Your task to perform on an android device: Open ESPN.com Image 0: 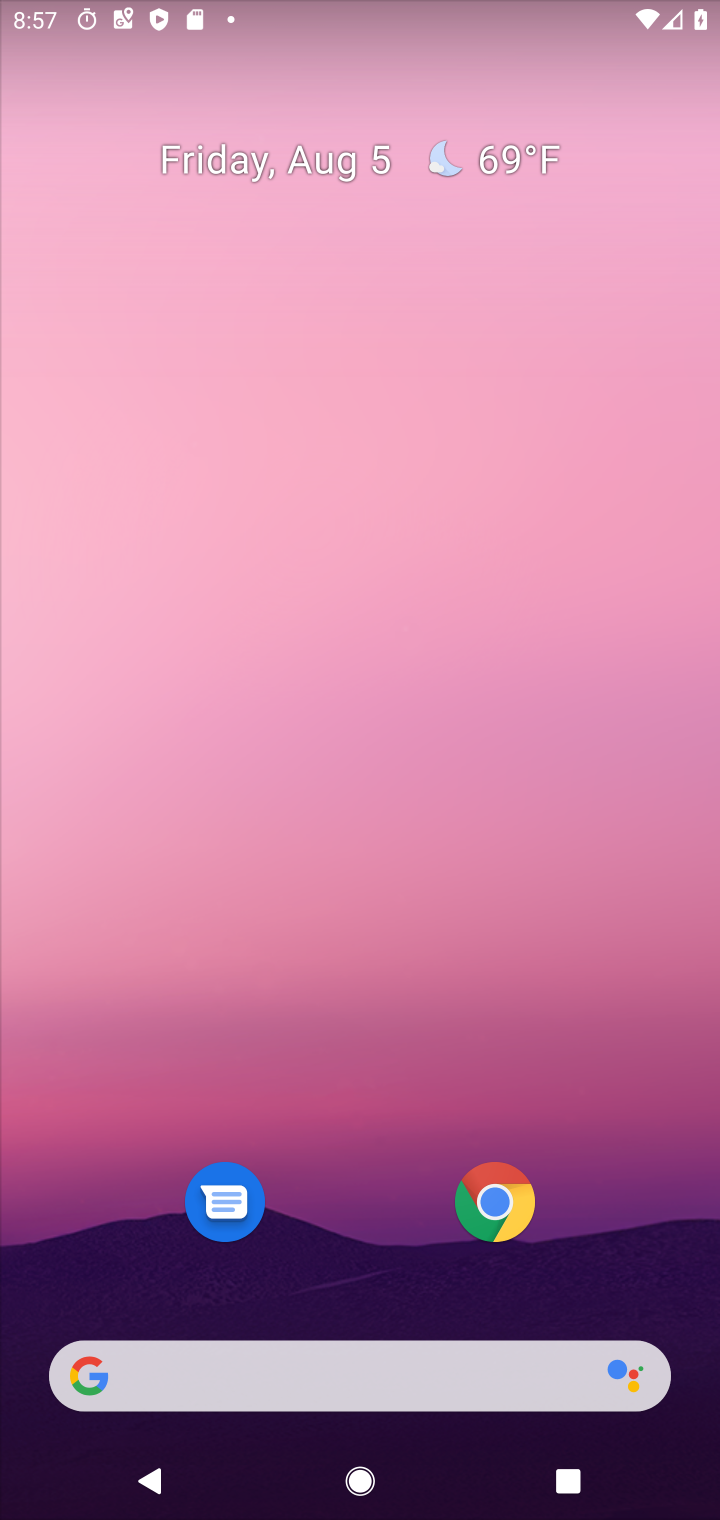
Step 0: click (514, 1206)
Your task to perform on an android device: Open ESPN.com Image 1: 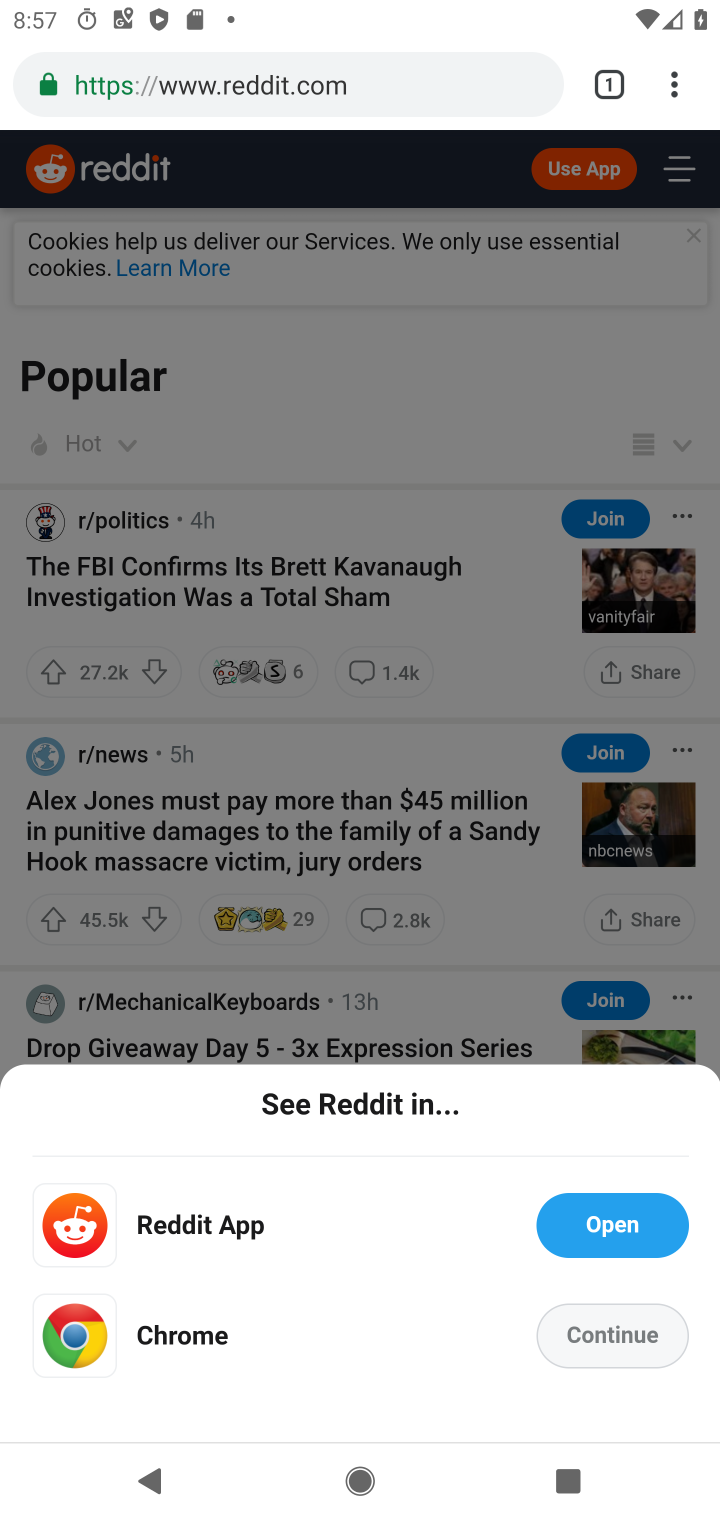
Step 1: click (315, 98)
Your task to perform on an android device: Open ESPN.com Image 2: 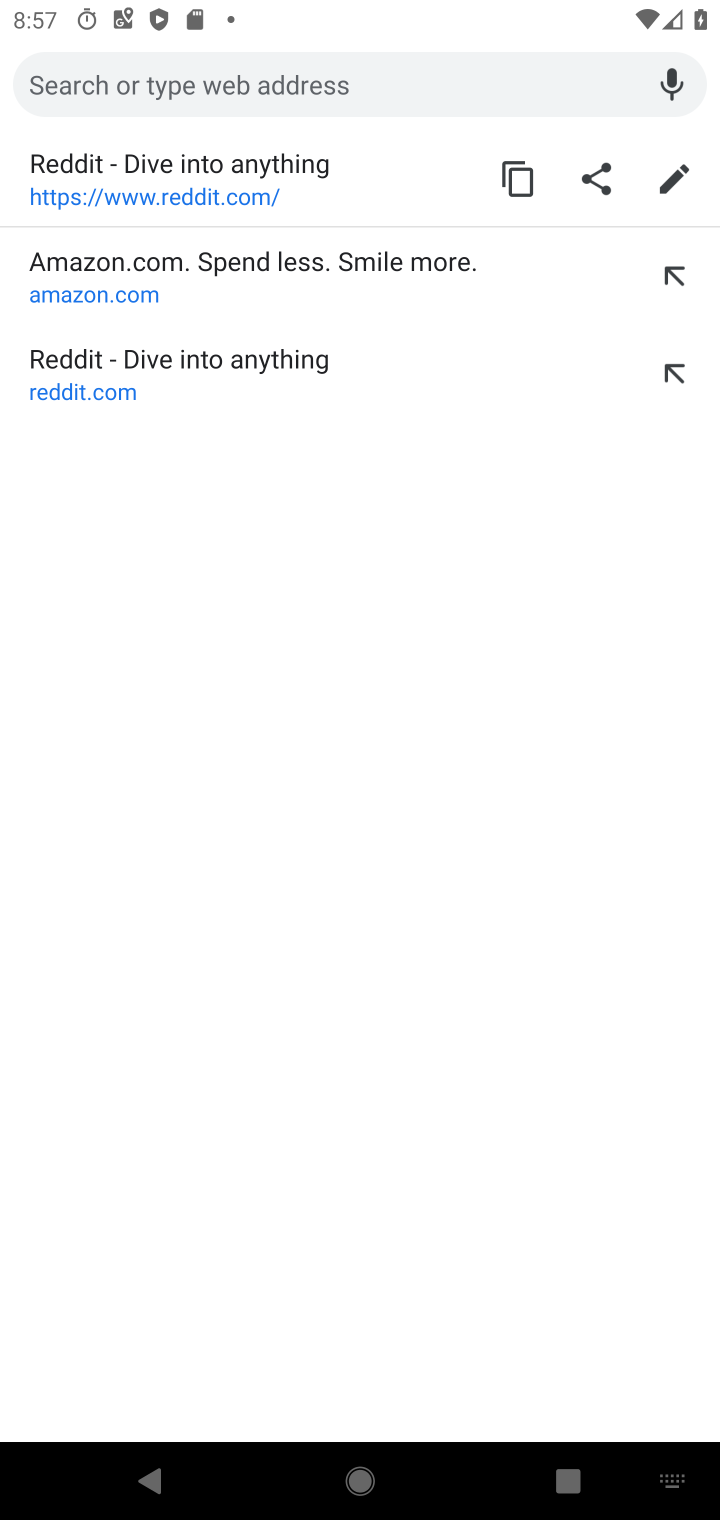
Step 2: type "ESPN.com"
Your task to perform on an android device: Open ESPN.com Image 3: 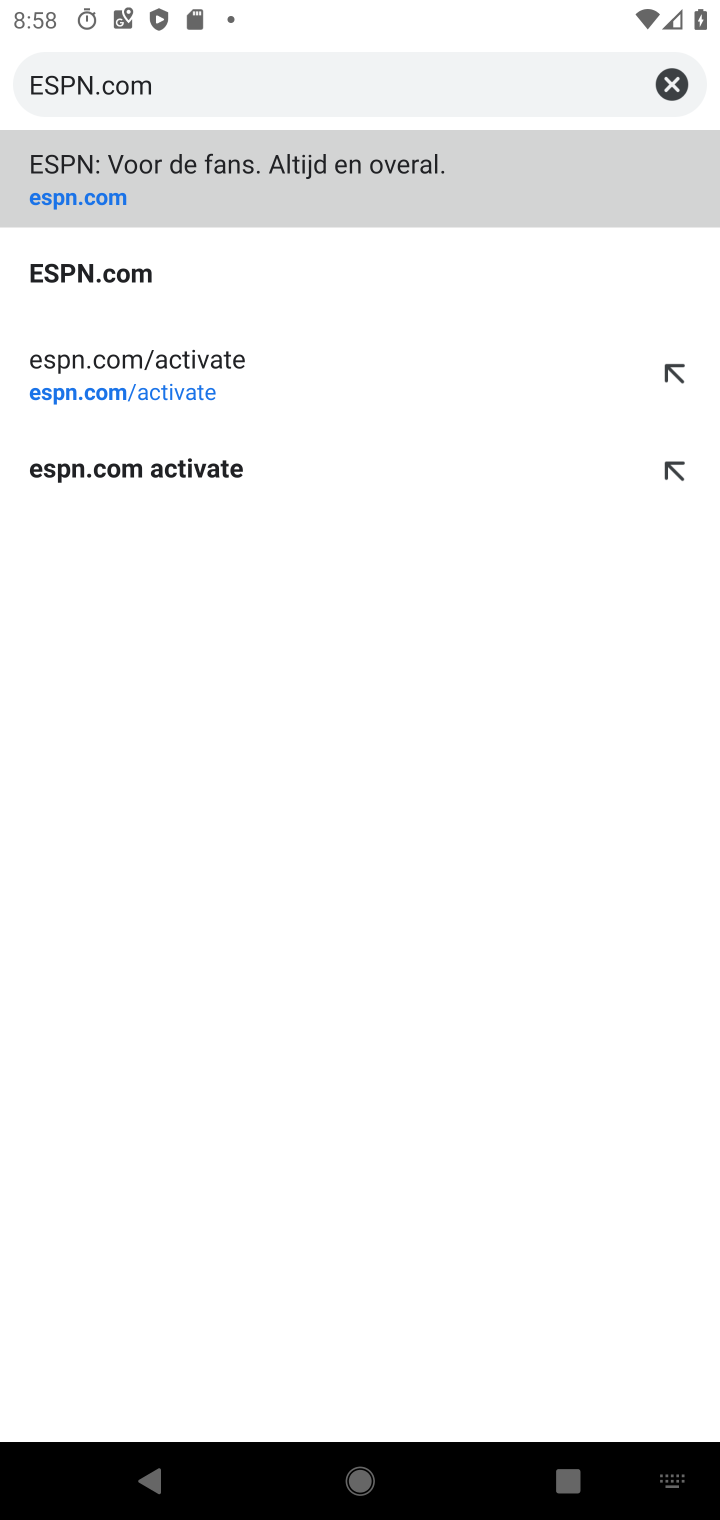
Step 3: click (245, 196)
Your task to perform on an android device: Open ESPN.com Image 4: 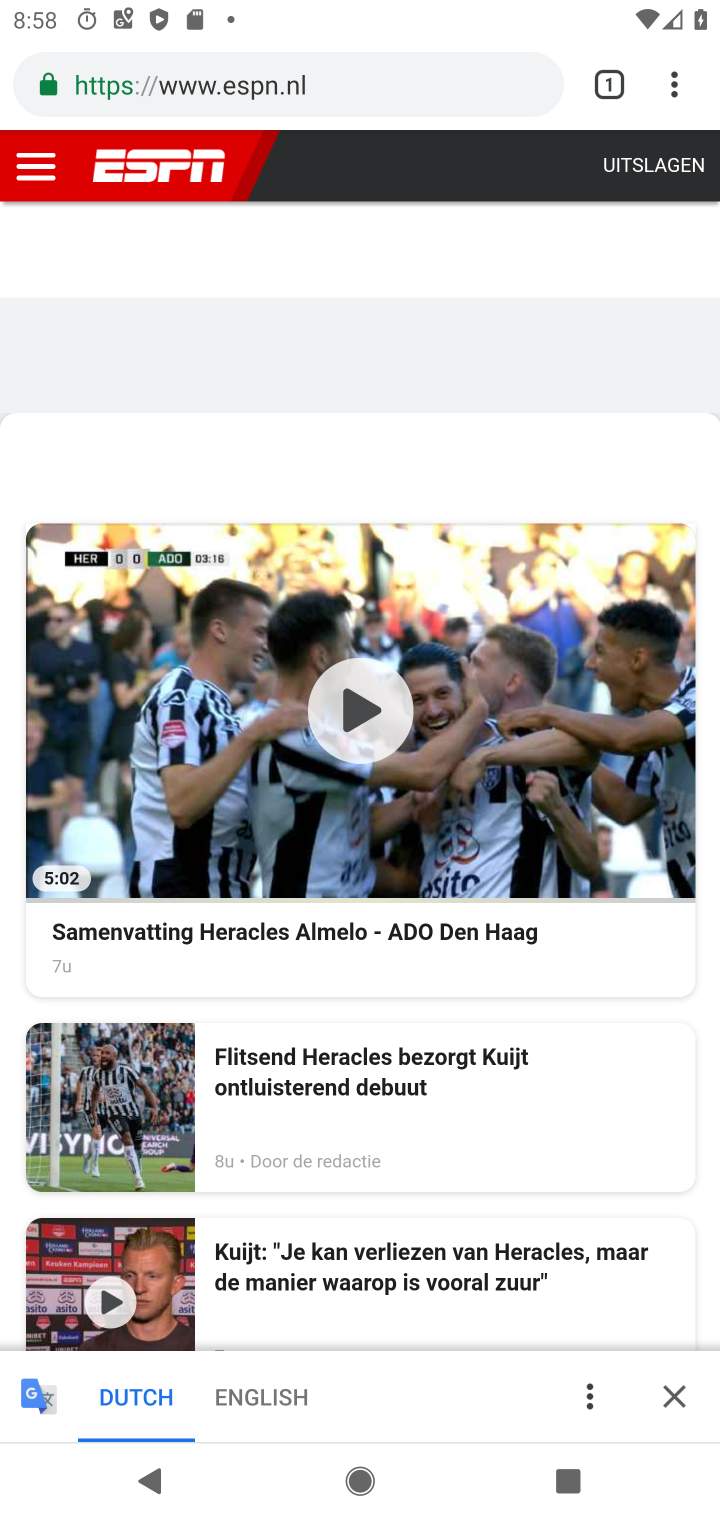
Step 4: task complete